Your task to perform on an android device: turn on improve location accuracy Image 0: 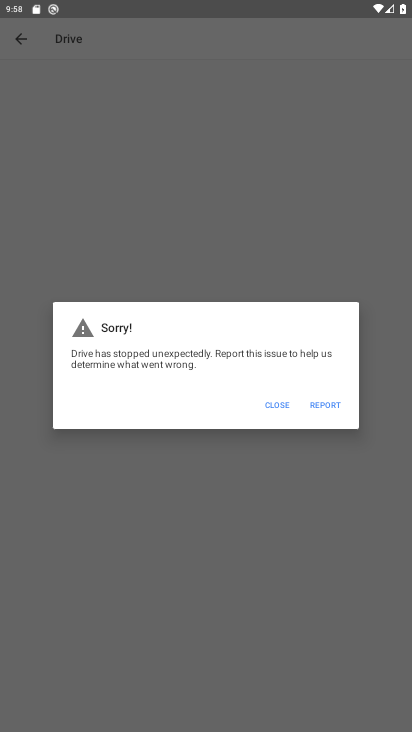
Step 0: press home button
Your task to perform on an android device: turn on improve location accuracy Image 1: 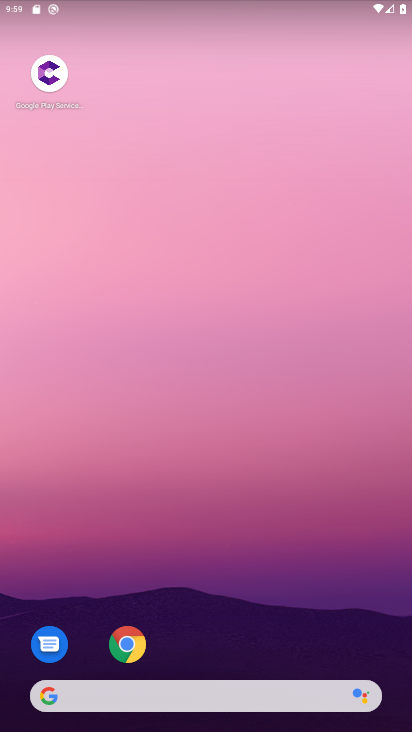
Step 1: drag from (177, 670) to (258, 125)
Your task to perform on an android device: turn on improve location accuracy Image 2: 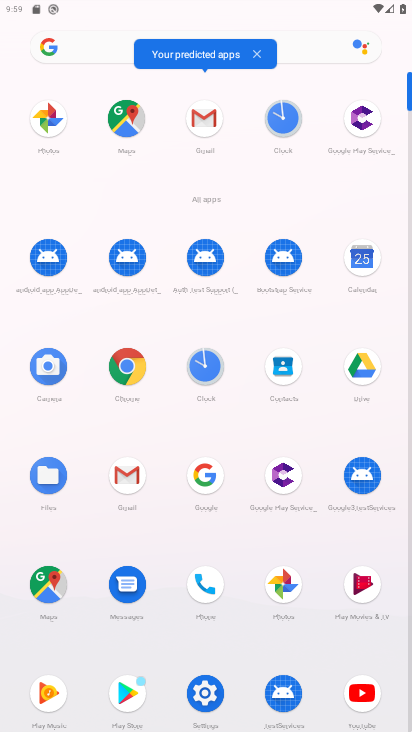
Step 2: drag from (217, 630) to (278, 396)
Your task to perform on an android device: turn on improve location accuracy Image 3: 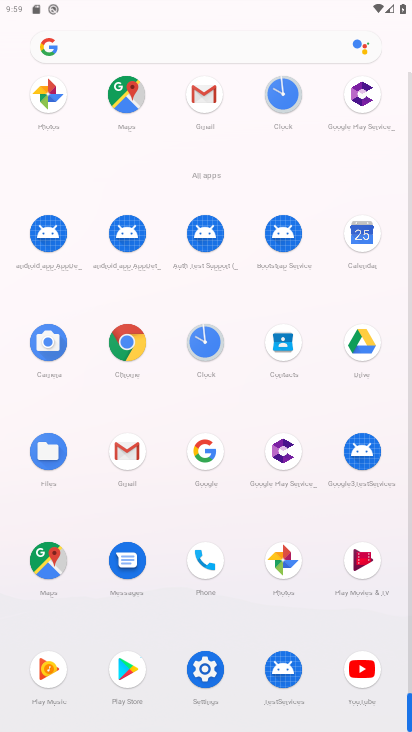
Step 3: click (209, 683)
Your task to perform on an android device: turn on improve location accuracy Image 4: 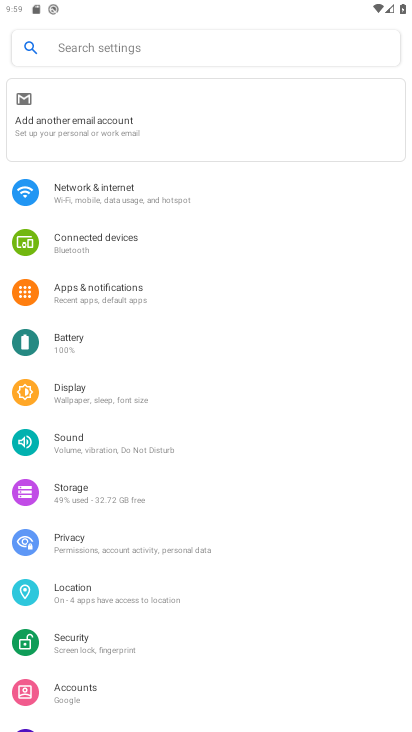
Step 4: click (108, 601)
Your task to perform on an android device: turn on improve location accuracy Image 5: 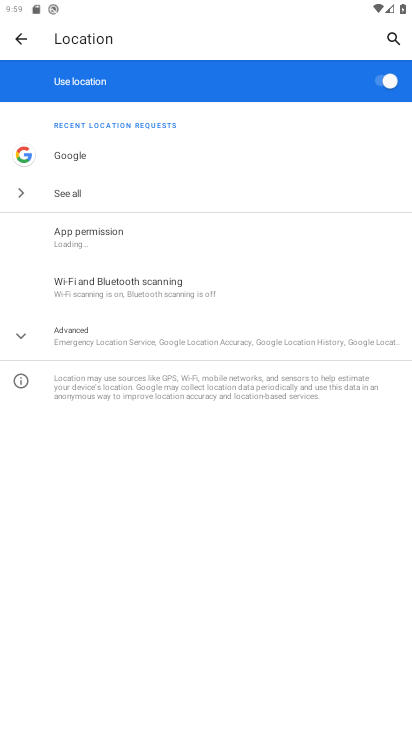
Step 5: click (132, 334)
Your task to perform on an android device: turn on improve location accuracy Image 6: 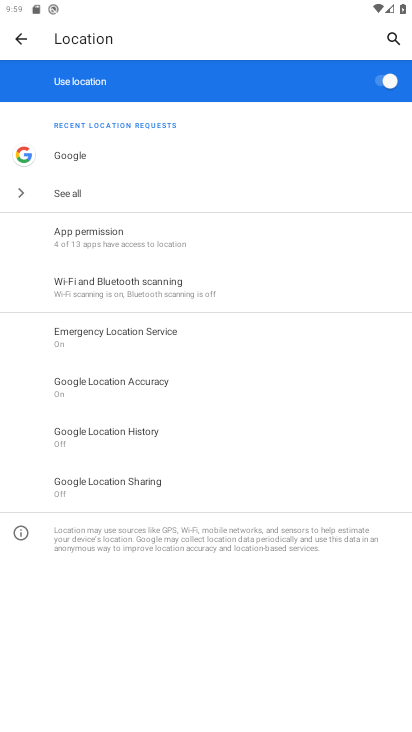
Step 6: click (179, 391)
Your task to perform on an android device: turn on improve location accuracy Image 7: 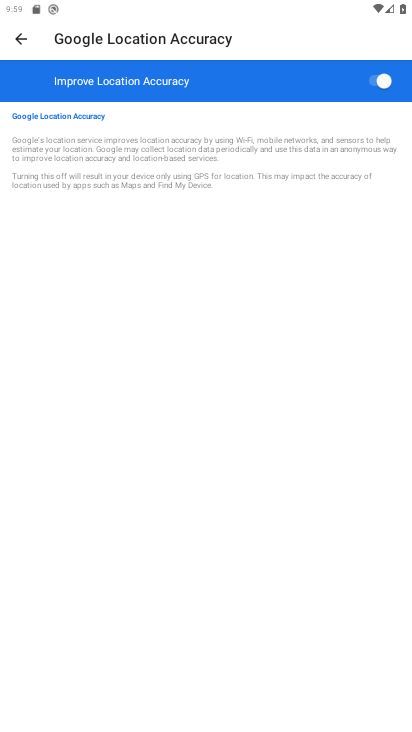
Step 7: task complete